Your task to perform on an android device: Is it going to rain this weekend? Image 0: 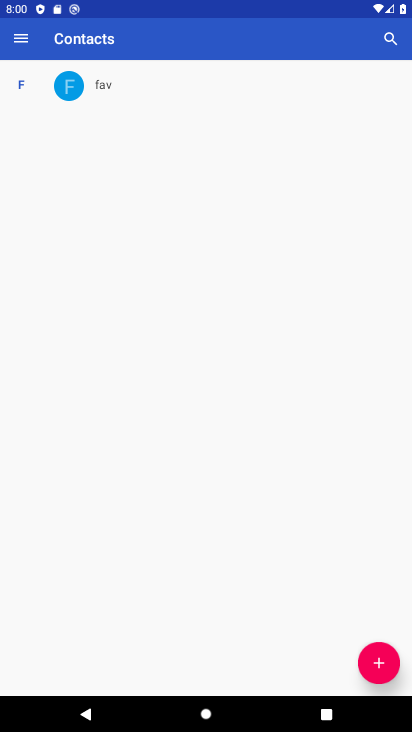
Step 0: press home button
Your task to perform on an android device: Is it going to rain this weekend? Image 1: 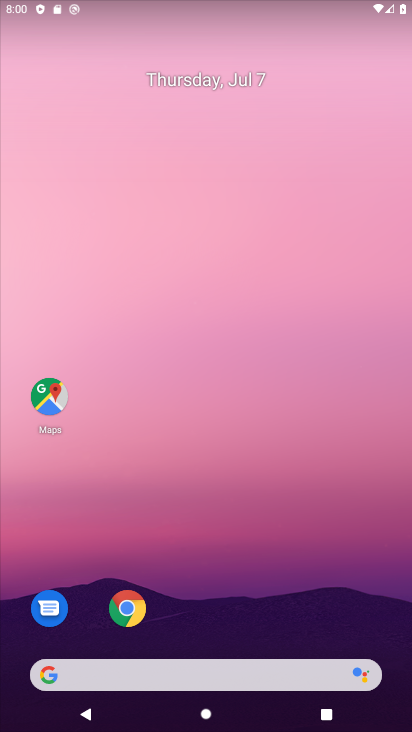
Step 1: click (248, 670)
Your task to perform on an android device: Is it going to rain this weekend? Image 2: 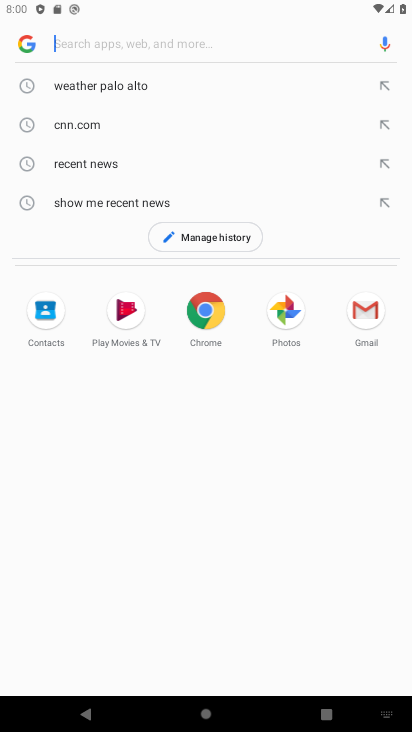
Step 2: type "weather"
Your task to perform on an android device: Is it going to rain this weekend? Image 3: 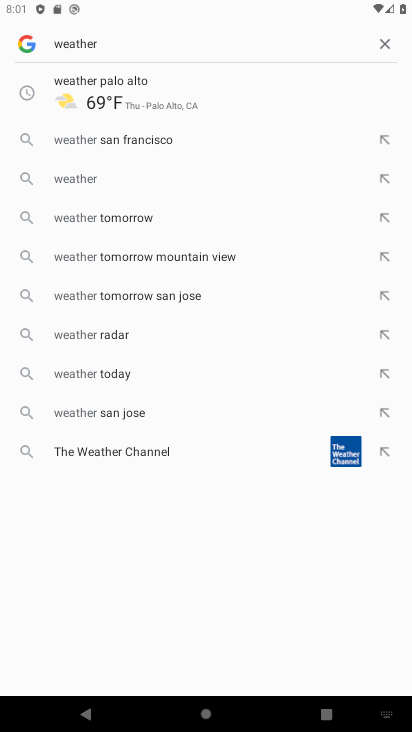
Step 3: click (136, 85)
Your task to perform on an android device: Is it going to rain this weekend? Image 4: 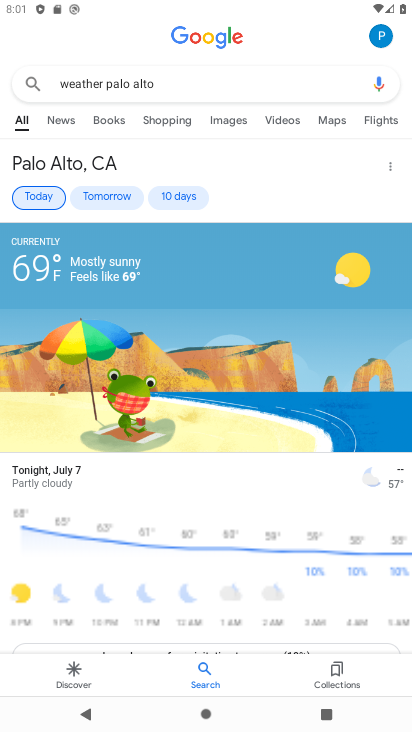
Step 4: click (173, 188)
Your task to perform on an android device: Is it going to rain this weekend? Image 5: 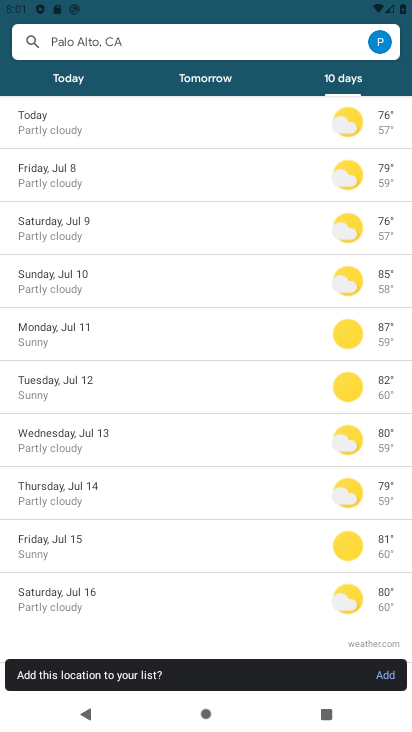
Step 5: click (126, 219)
Your task to perform on an android device: Is it going to rain this weekend? Image 6: 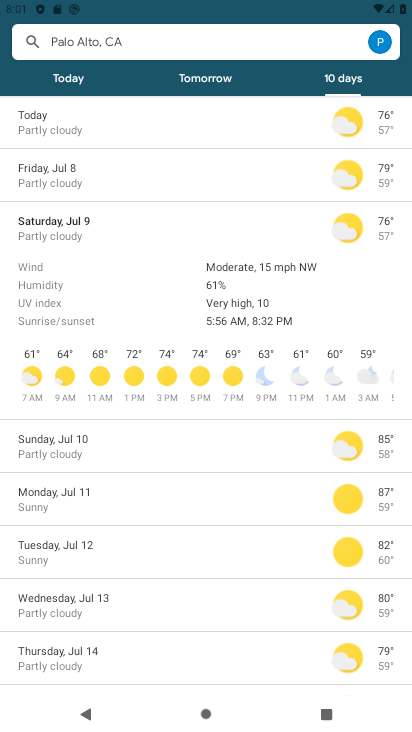
Step 6: task complete